Your task to perform on an android device: toggle notifications settings in the gmail app Image 0: 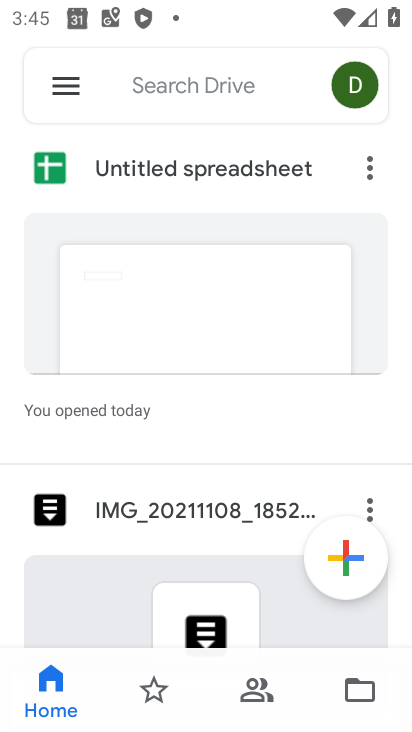
Step 0: press home button
Your task to perform on an android device: toggle notifications settings in the gmail app Image 1: 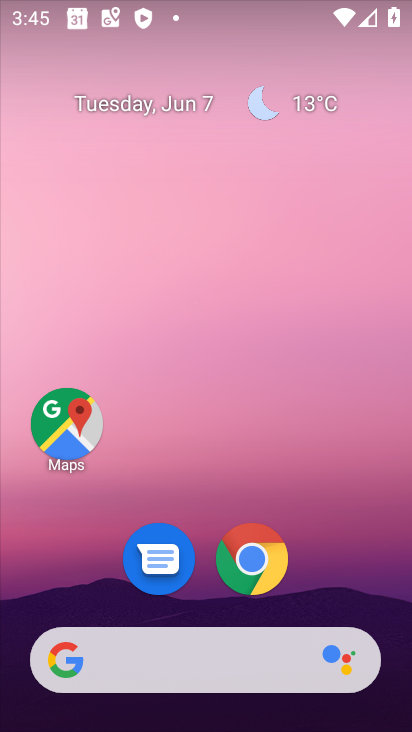
Step 1: drag from (334, 584) to (264, 151)
Your task to perform on an android device: toggle notifications settings in the gmail app Image 2: 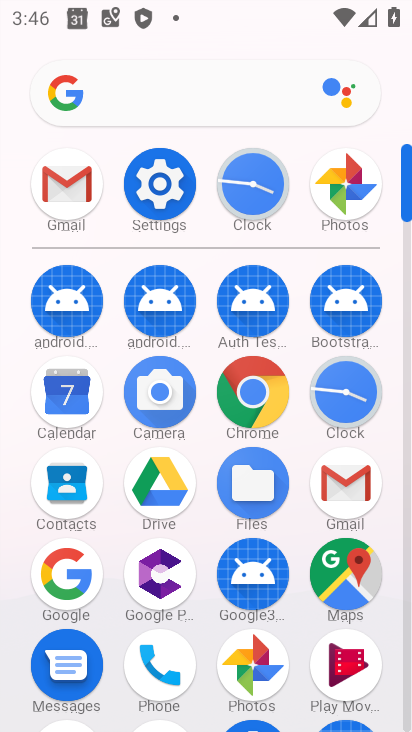
Step 2: click (66, 185)
Your task to perform on an android device: toggle notifications settings in the gmail app Image 3: 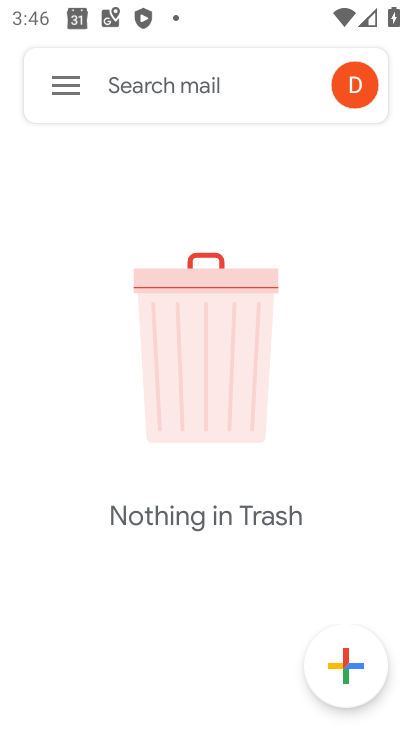
Step 3: click (67, 86)
Your task to perform on an android device: toggle notifications settings in the gmail app Image 4: 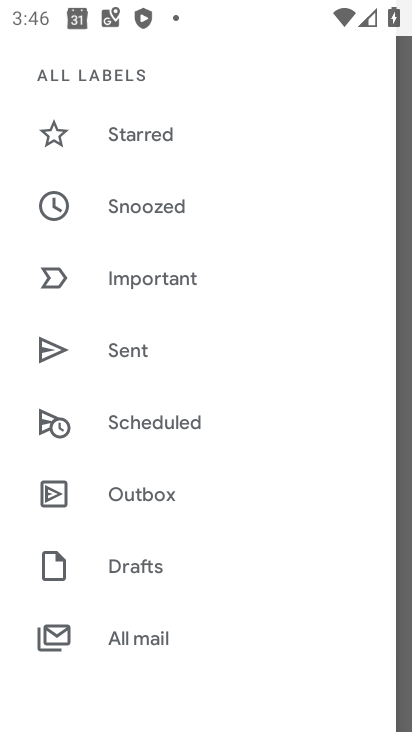
Step 4: drag from (140, 372) to (161, 180)
Your task to perform on an android device: toggle notifications settings in the gmail app Image 5: 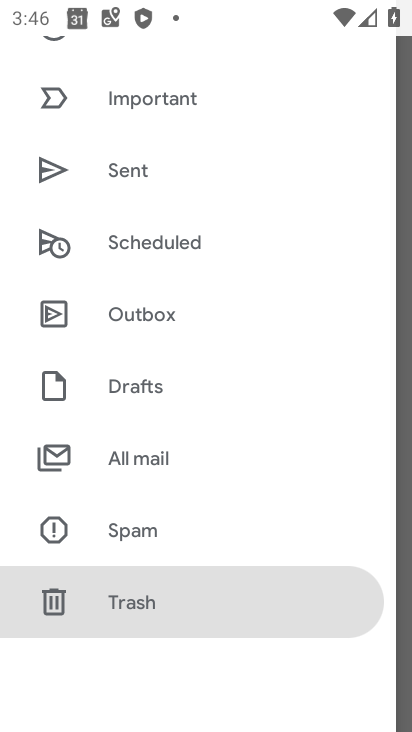
Step 5: drag from (140, 502) to (146, 221)
Your task to perform on an android device: toggle notifications settings in the gmail app Image 6: 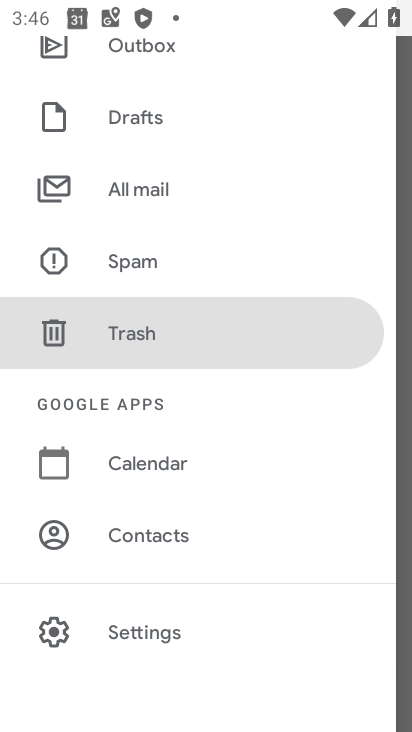
Step 6: click (152, 626)
Your task to perform on an android device: toggle notifications settings in the gmail app Image 7: 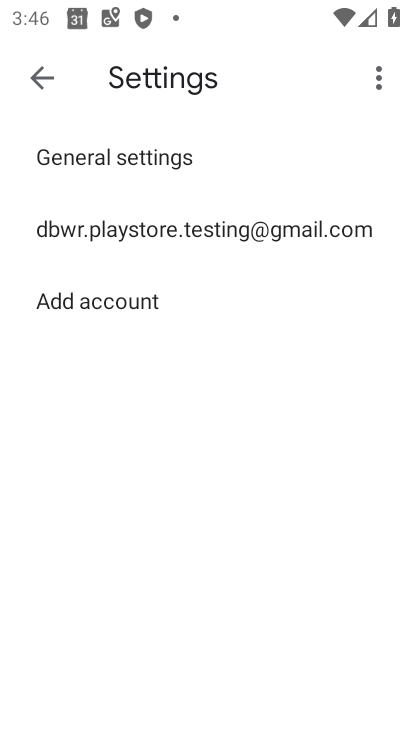
Step 7: click (187, 234)
Your task to perform on an android device: toggle notifications settings in the gmail app Image 8: 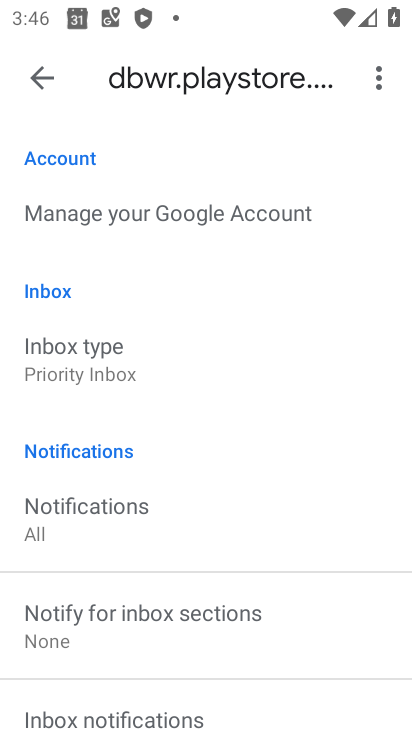
Step 8: drag from (170, 559) to (246, 197)
Your task to perform on an android device: toggle notifications settings in the gmail app Image 9: 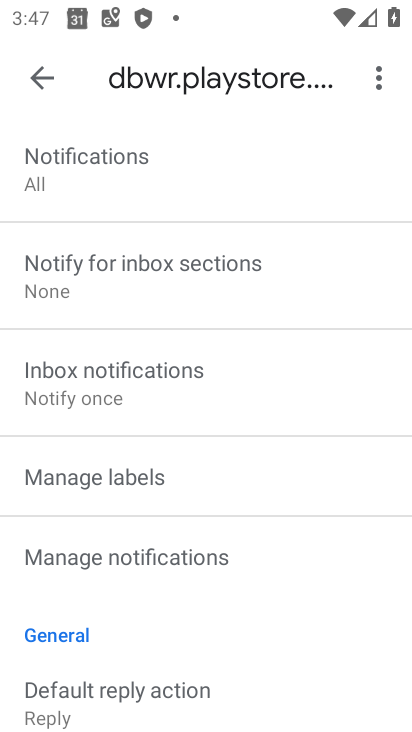
Step 9: drag from (192, 594) to (191, 501)
Your task to perform on an android device: toggle notifications settings in the gmail app Image 10: 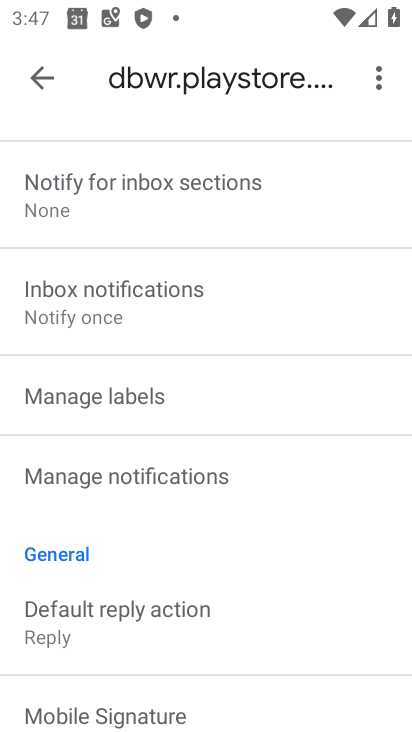
Step 10: click (186, 476)
Your task to perform on an android device: toggle notifications settings in the gmail app Image 11: 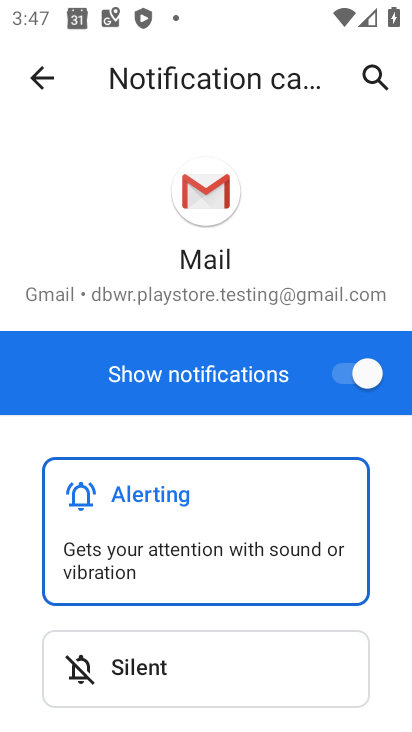
Step 11: click (343, 373)
Your task to perform on an android device: toggle notifications settings in the gmail app Image 12: 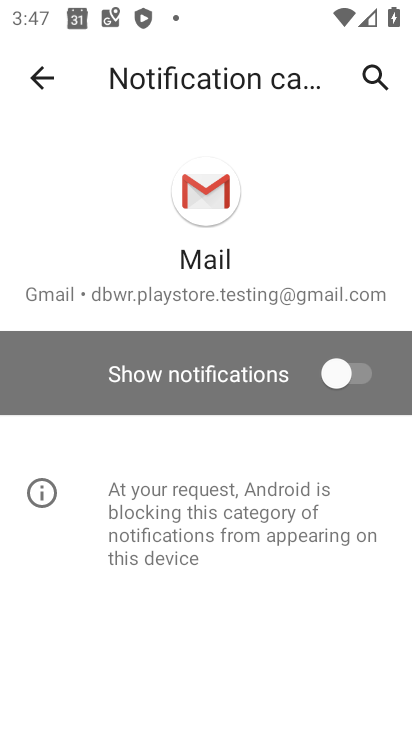
Step 12: task complete